Your task to perform on an android device: change alarm snooze length Image 0: 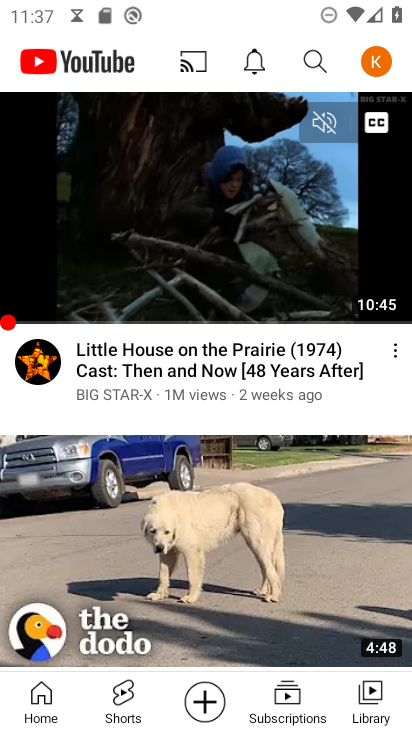
Step 0: press home button
Your task to perform on an android device: change alarm snooze length Image 1: 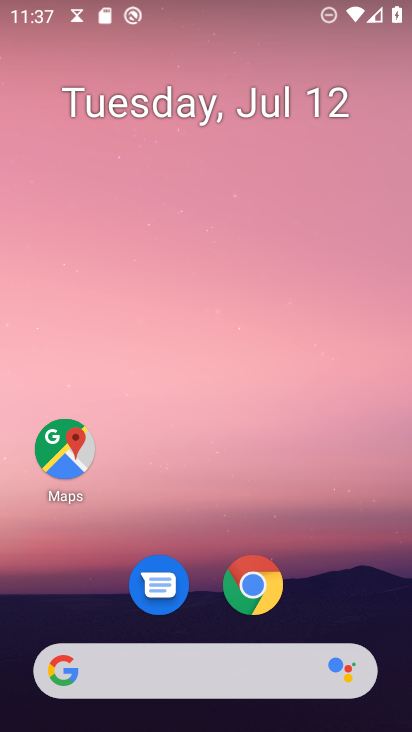
Step 1: drag from (231, 647) to (275, 85)
Your task to perform on an android device: change alarm snooze length Image 2: 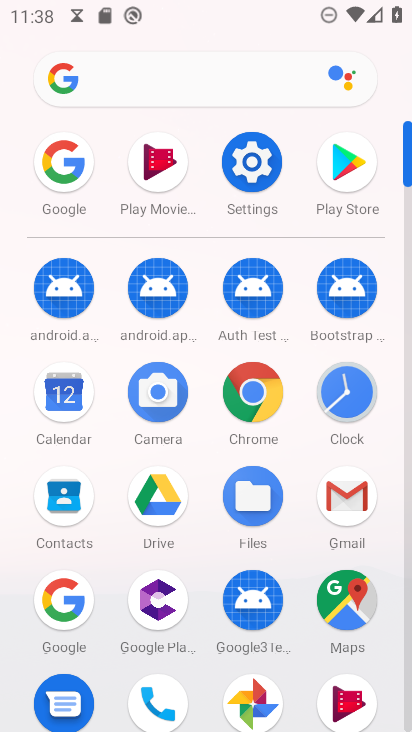
Step 2: click (349, 395)
Your task to perform on an android device: change alarm snooze length Image 3: 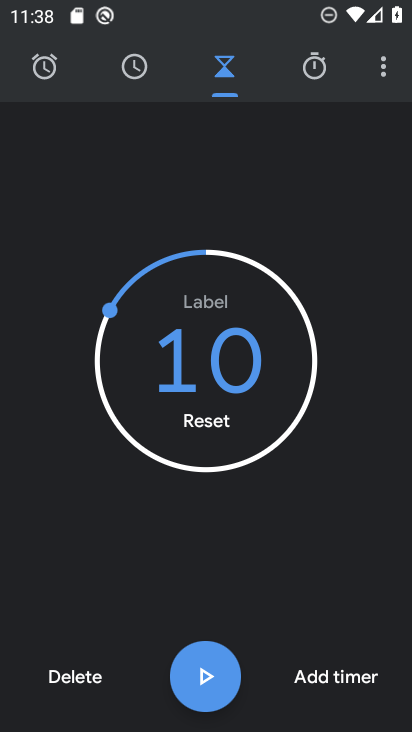
Step 3: click (385, 71)
Your task to perform on an android device: change alarm snooze length Image 4: 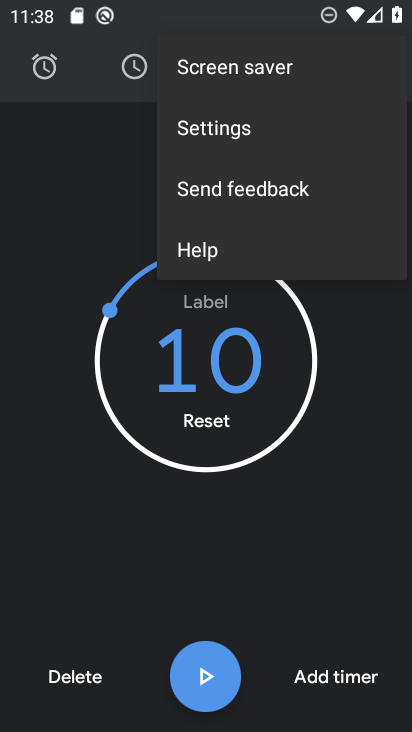
Step 4: click (218, 123)
Your task to perform on an android device: change alarm snooze length Image 5: 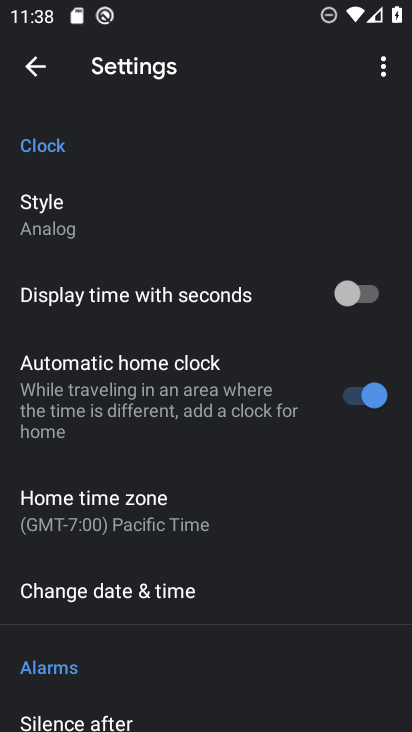
Step 5: drag from (165, 636) to (267, 45)
Your task to perform on an android device: change alarm snooze length Image 6: 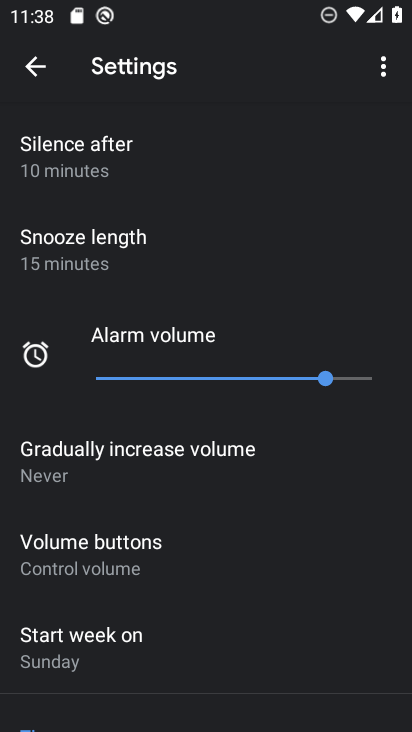
Step 6: drag from (151, 553) to (292, 39)
Your task to perform on an android device: change alarm snooze length Image 7: 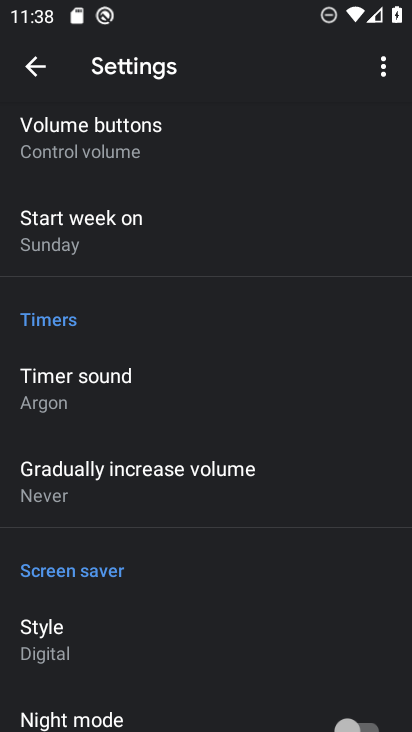
Step 7: drag from (215, 192) to (194, 527)
Your task to perform on an android device: change alarm snooze length Image 8: 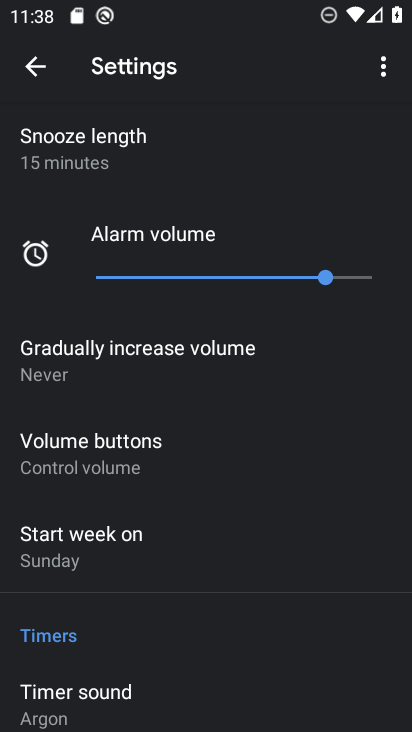
Step 8: drag from (255, 204) to (215, 584)
Your task to perform on an android device: change alarm snooze length Image 9: 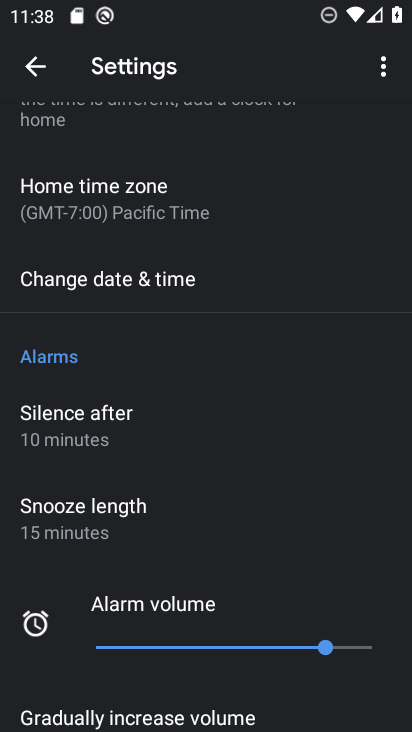
Step 9: click (91, 511)
Your task to perform on an android device: change alarm snooze length Image 10: 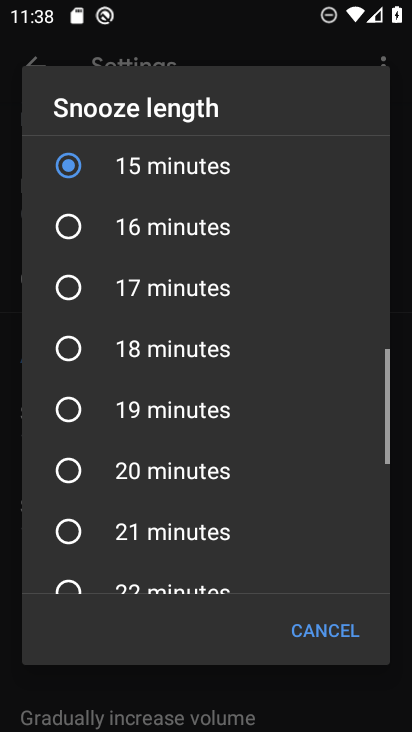
Step 10: drag from (118, 171) to (149, 544)
Your task to perform on an android device: change alarm snooze length Image 11: 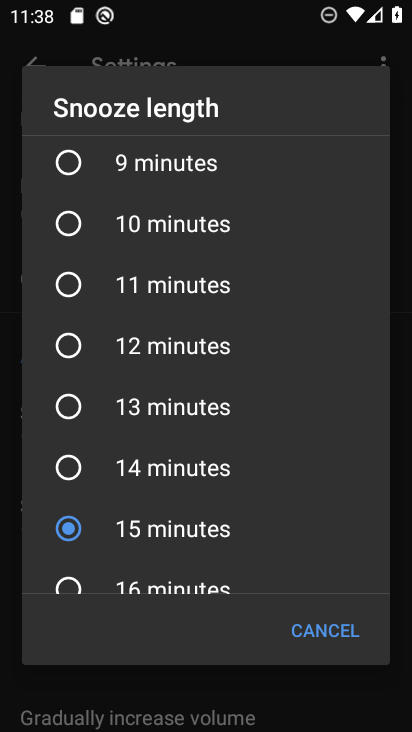
Step 11: click (63, 227)
Your task to perform on an android device: change alarm snooze length Image 12: 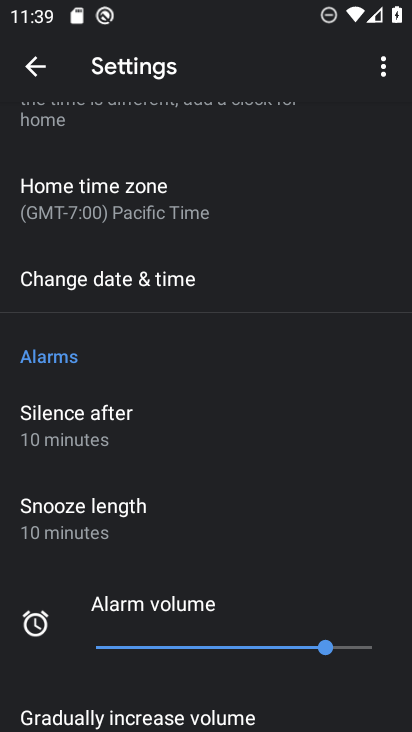
Step 12: task complete